Your task to perform on an android device: What's the weather going to be tomorrow? Image 0: 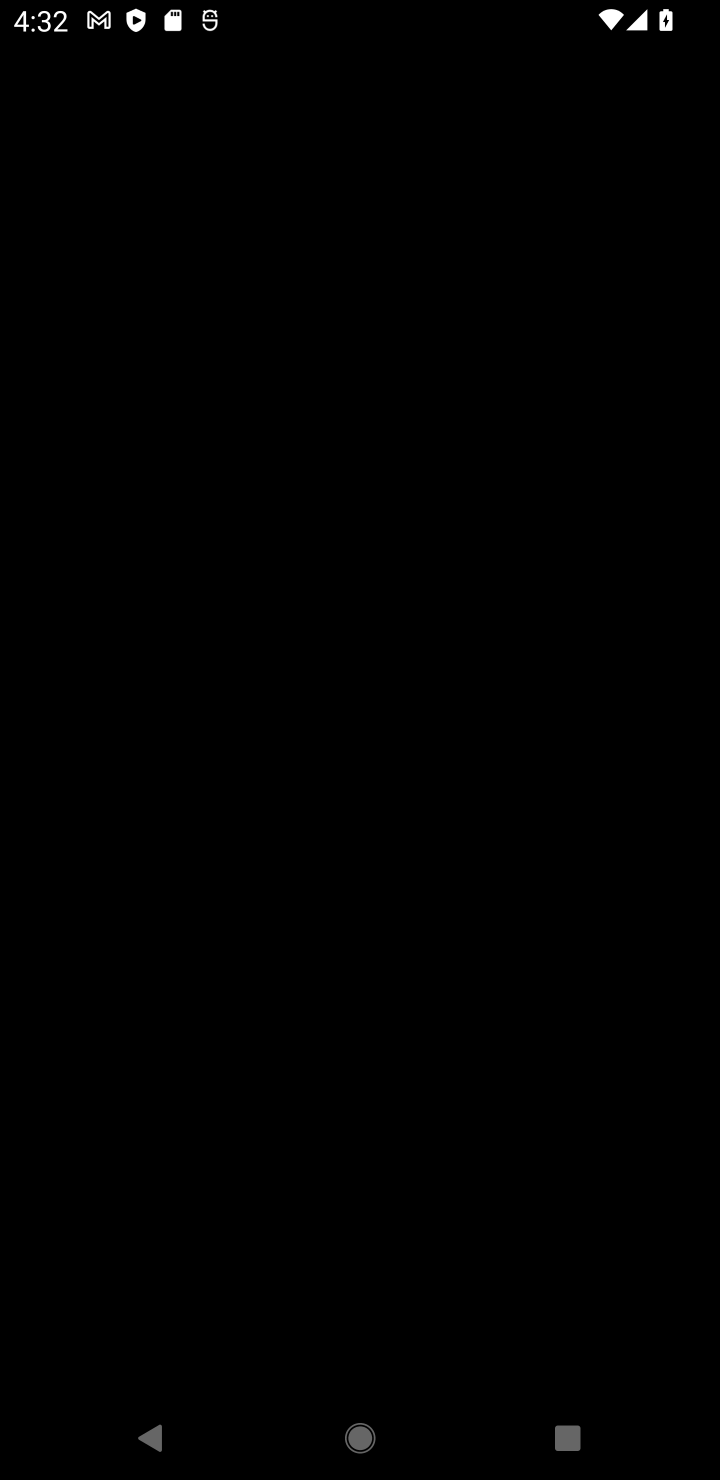
Step 0: press home button
Your task to perform on an android device: What's the weather going to be tomorrow? Image 1: 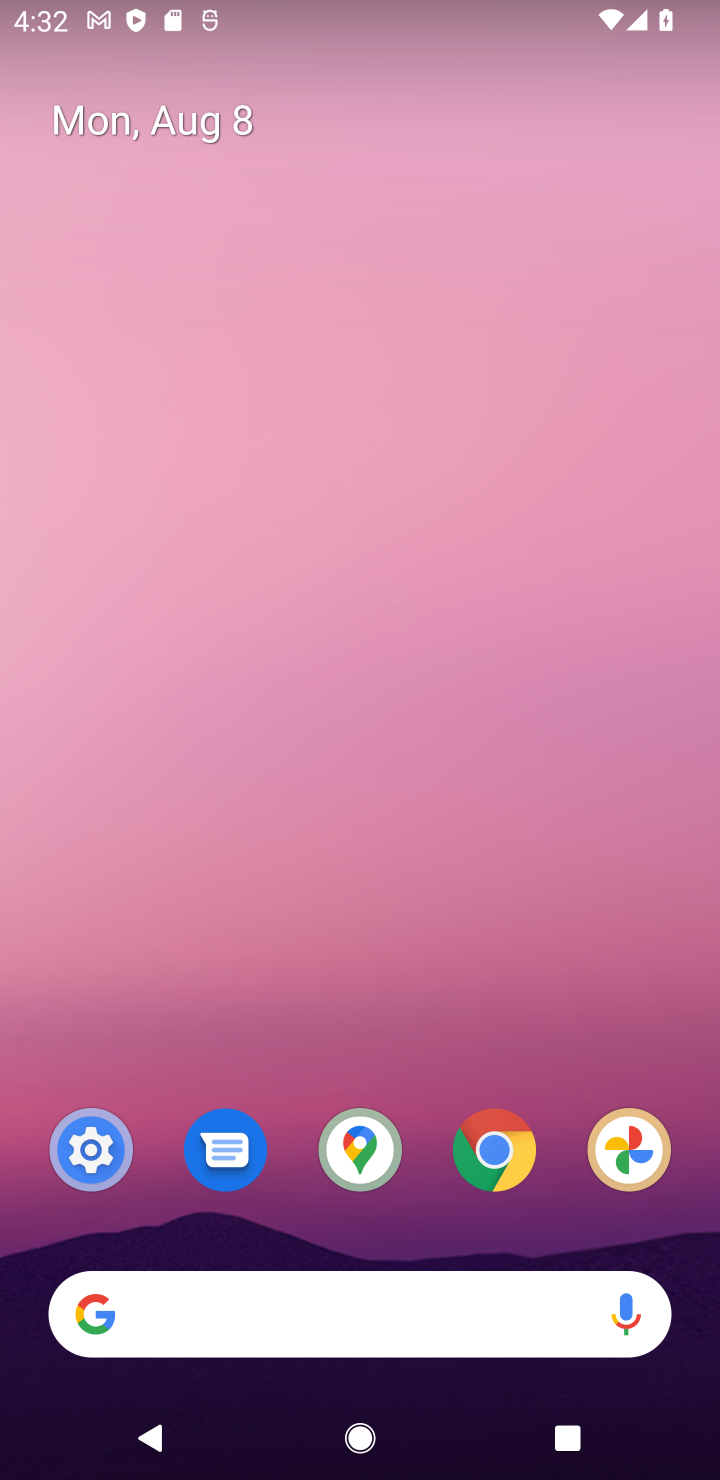
Step 1: click (350, 1294)
Your task to perform on an android device: What's the weather going to be tomorrow? Image 2: 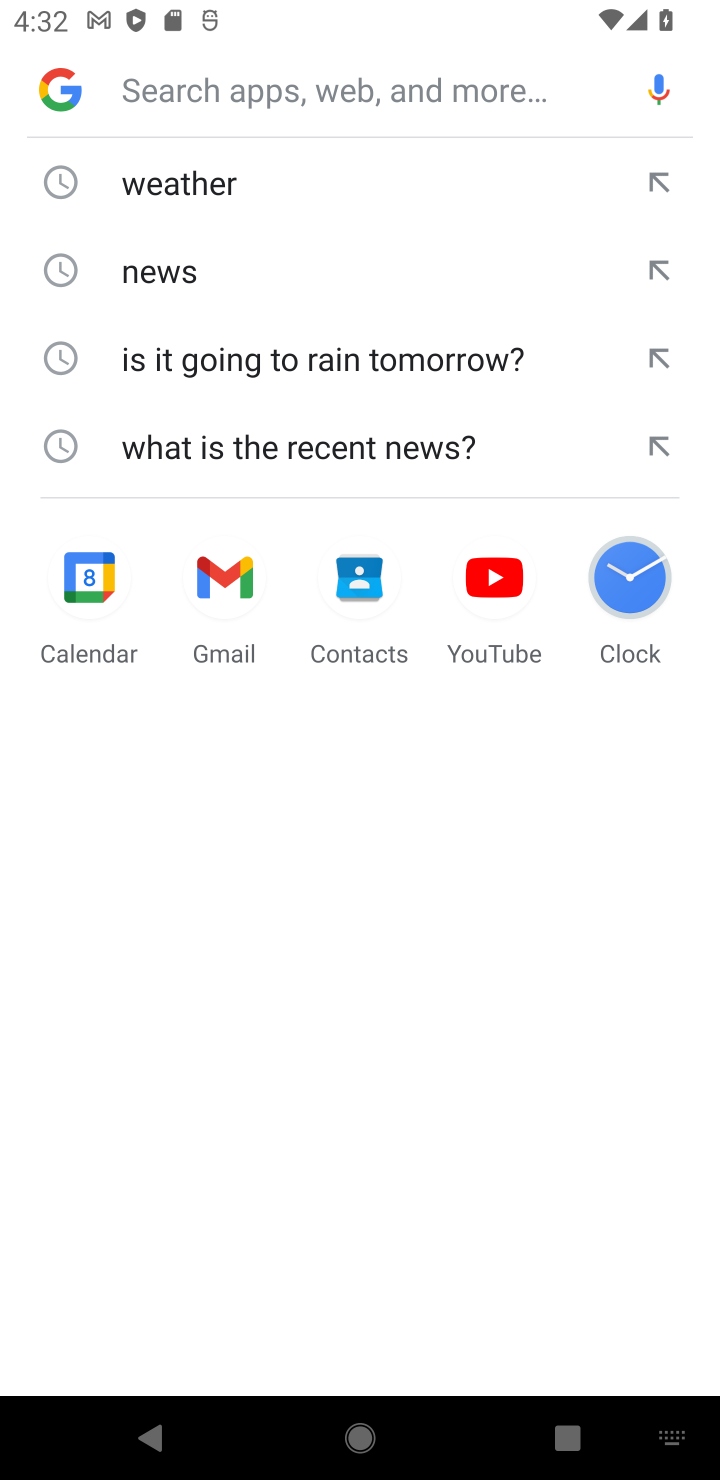
Step 2: click (298, 160)
Your task to perform on an android device: What's the weather going to be tomorrow? Image 3: 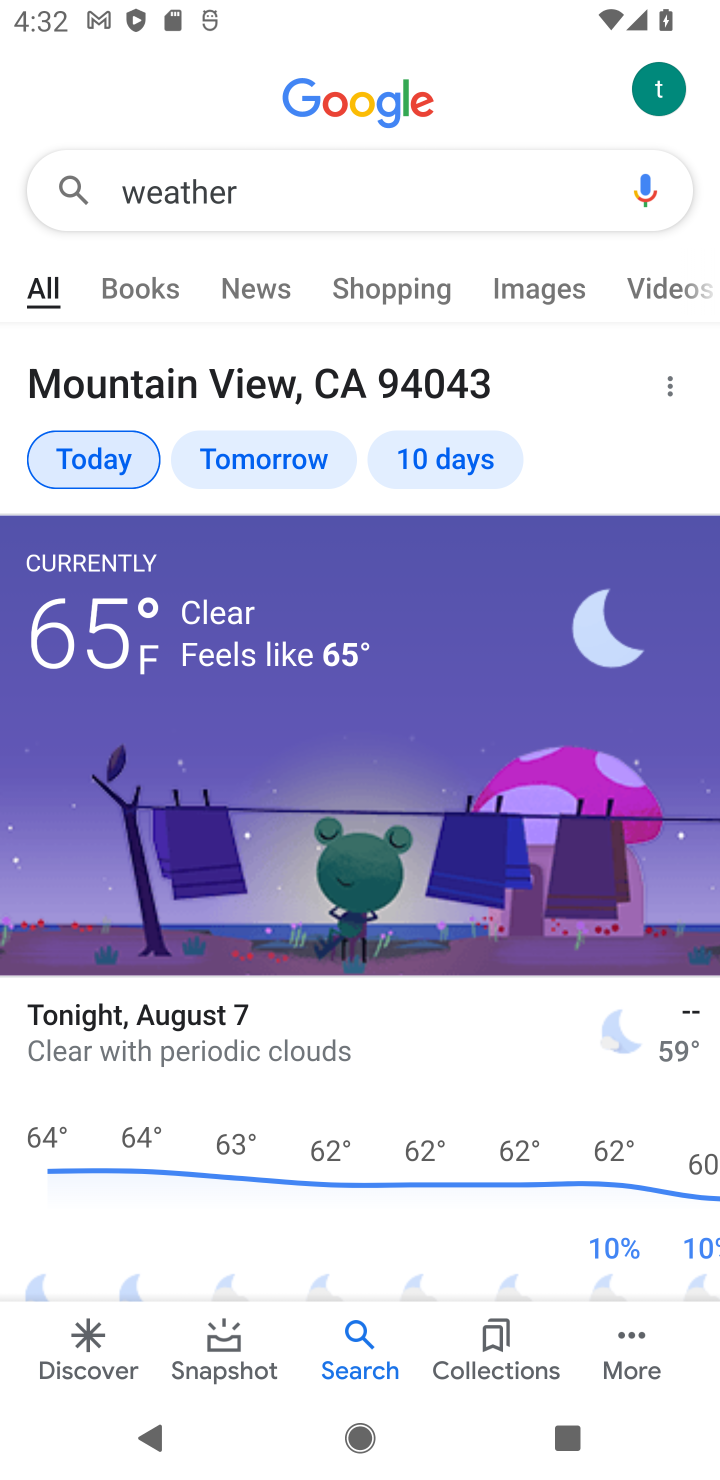
Step 3: task complete